Your task to perform on an android device: What's the weather today? Image 0: 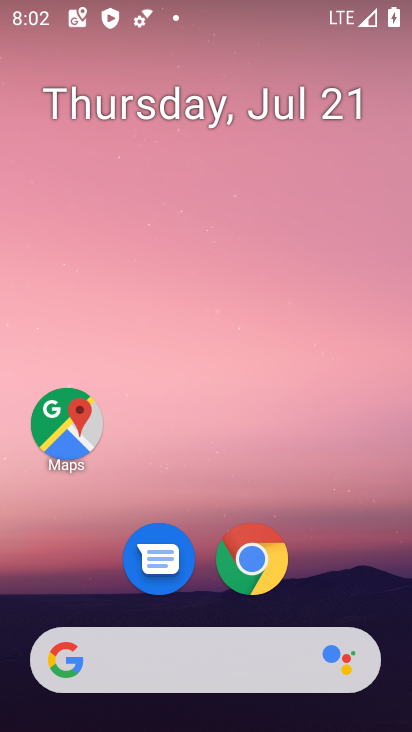
Step 0: drag from (278, 620) to (327, 296)
Your task to perform on an android device: What's the weather today? Image 1: 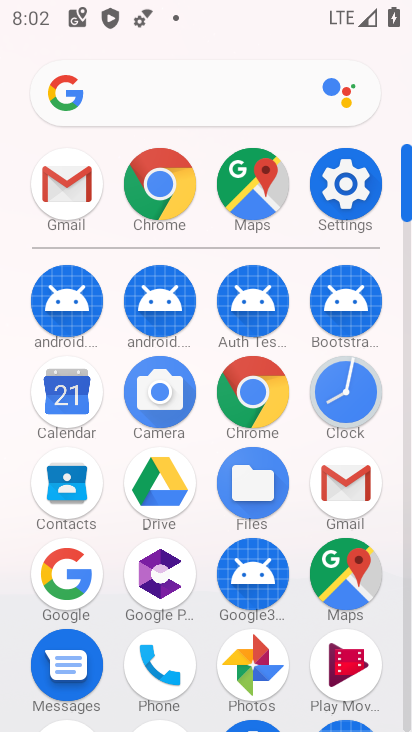
Step 1: click (59, 583)
Your task to perform on an android device: What's the weather today? Image 2: 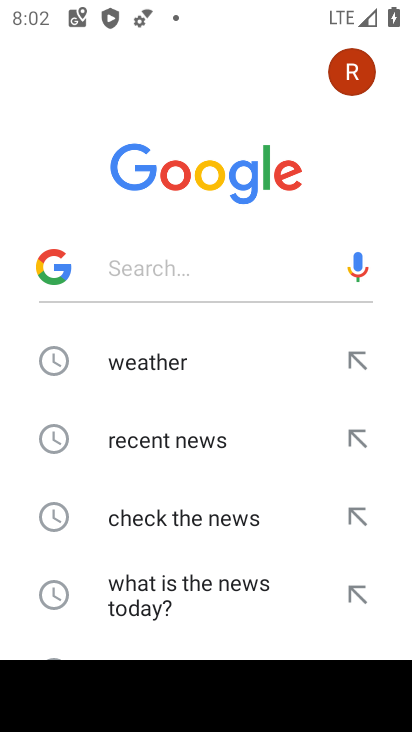
Step 2: click (178, 360)
Your task to perform on an android device: What's the weather today? Image 3: 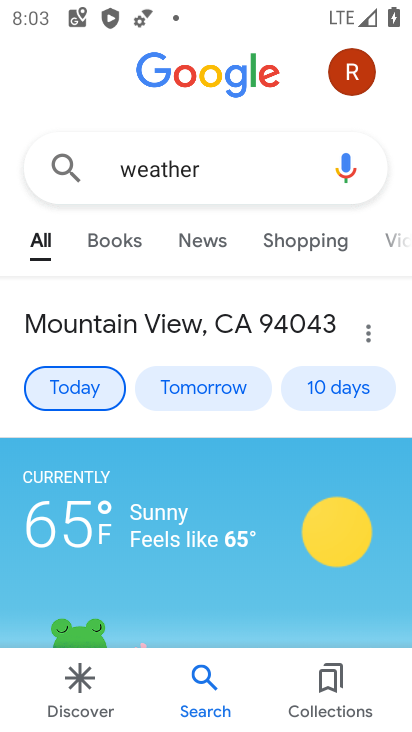
Step 3: task complete